Your task to perform on an android device: Turn on the flashlight Image 0: 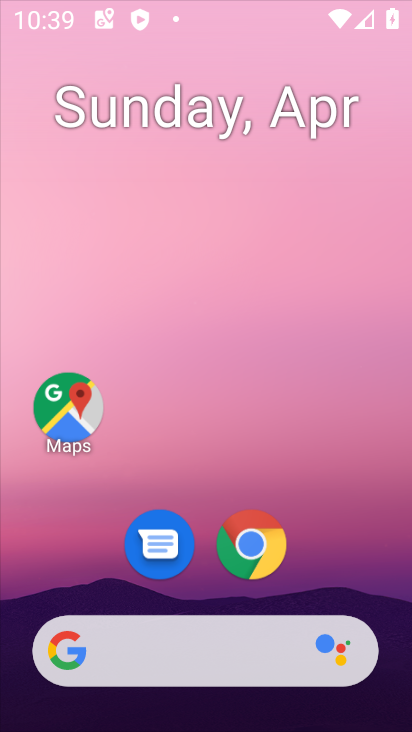
Step 0: click (248, 543)
Your task to perform on an android device: Turn on the flashlight Image 1: 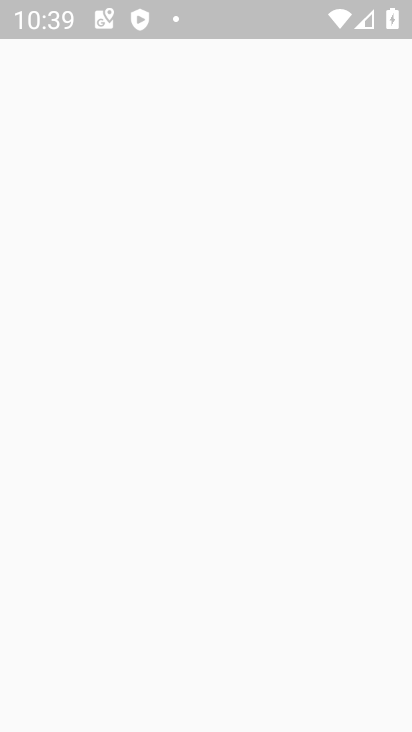
Step 1: press home button
Your task to perform on an android device: Turn on the flashlight Image 2: 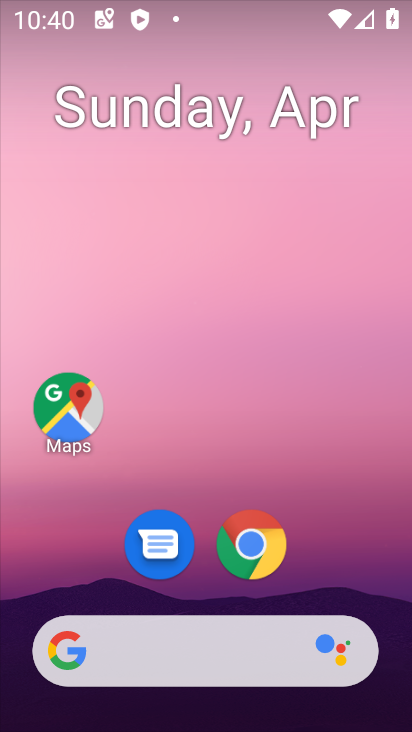
Step 2: drag from (206, 513) to (227, 141)
Your task to perform on an android device: Turn on the flashlight Image 3: 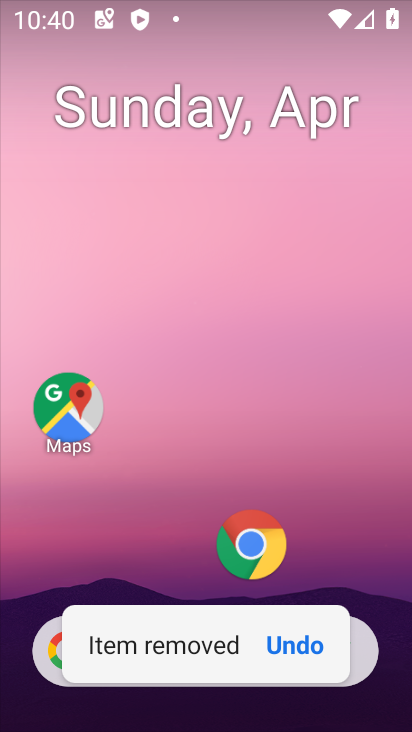
Step 3: drag from (188, 584) to (197, 163)
Your task to perform on an android device: Turn on the flashlight Image 4: 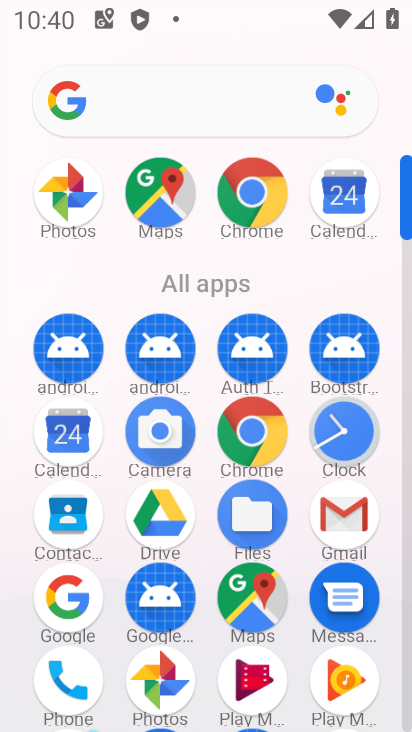
Step 4: drag from (108, 580) to (117, 267)
Your task to perform on an android device: Turn on the flashlight Image 5: 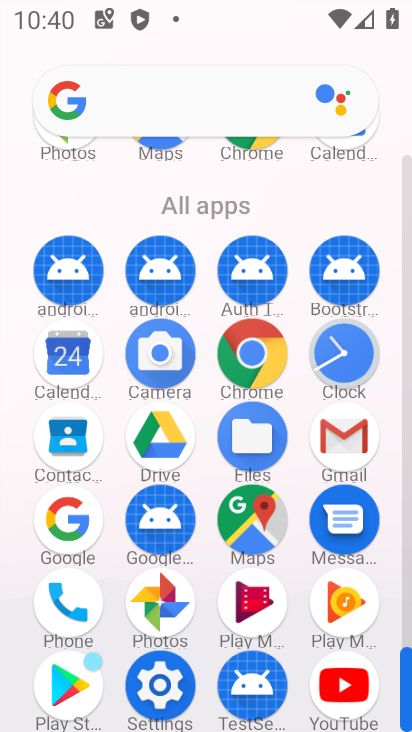
Step 5: click (157, 658)
Your task to perform on an android device: Turn on the flashlight Image 6: 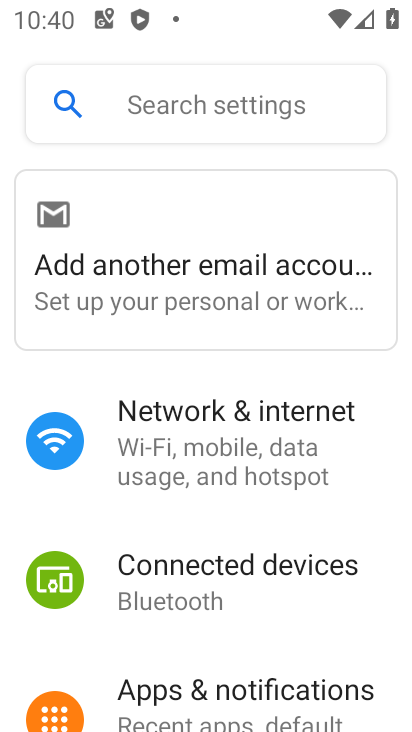
Step 6: click (124, 438)
Your task to perform on an android device: Turn on the flashlight Image 7: 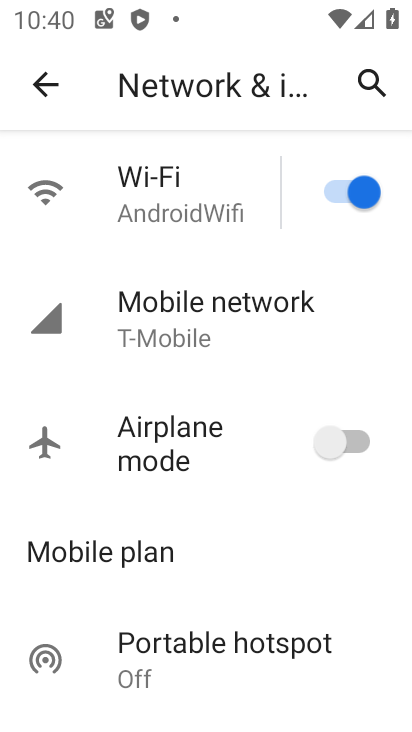
Step 7: task complete